Your task to perform on an android device: Go to eBay Image 0: 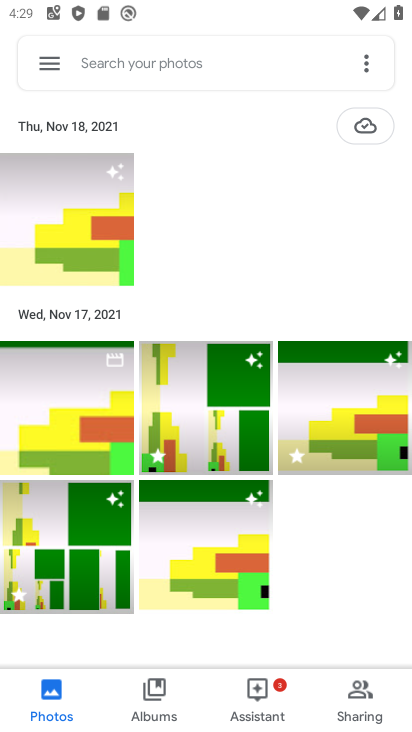
Step 0: press home button
Your task to perform on an android device: Go to eBay Image 1: 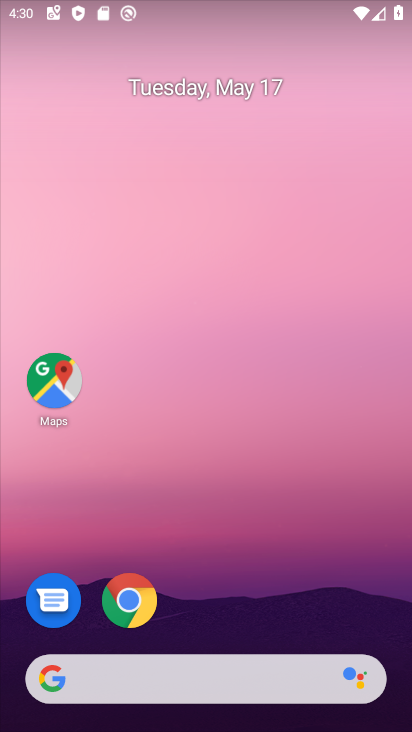
Step 1: drag from (212, 605) to (261, 24)
Your task to perform on an android device: Go to eBay Image 2: 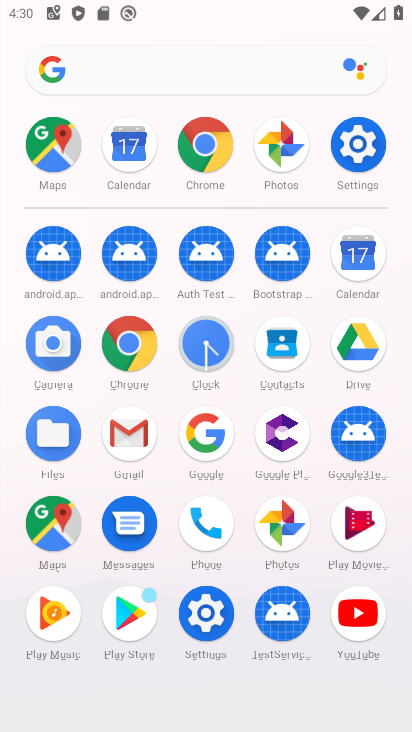
Step 2: click (125, 336)
Your task to perform on an android device: Go to eBay Image 3: 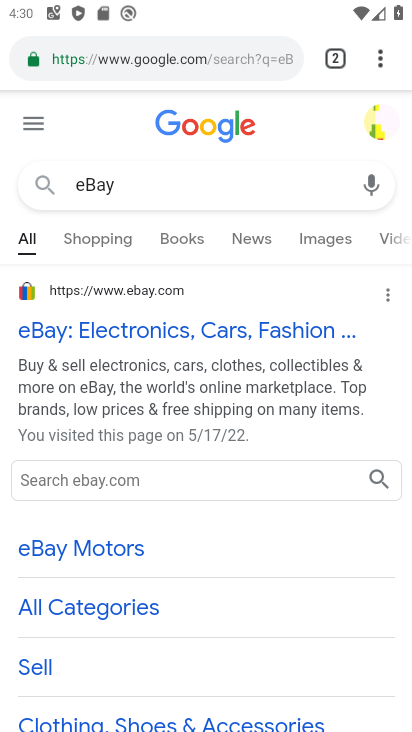
Step 3: click (177, 336)
Your task to perform on an android device: Go to eBay Image 4: 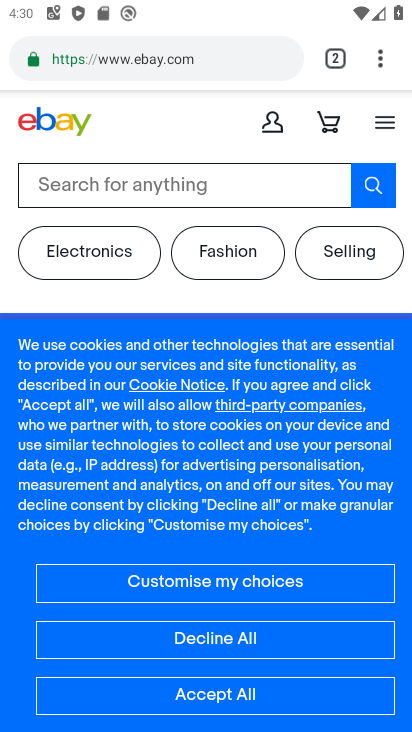
Step 4: task complete